Your task to perform on an android device: change the upload size in google photos Image 0: 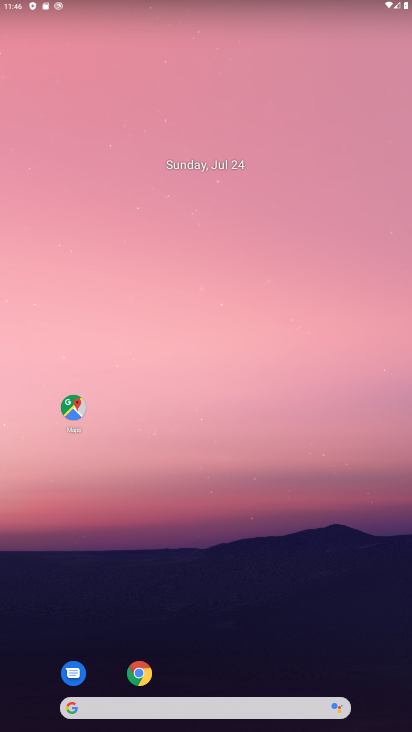
Step 0: drag from (174, 708) to (251, 52)
Your task to perform on an android device: change the upload size in google photos Image 1: 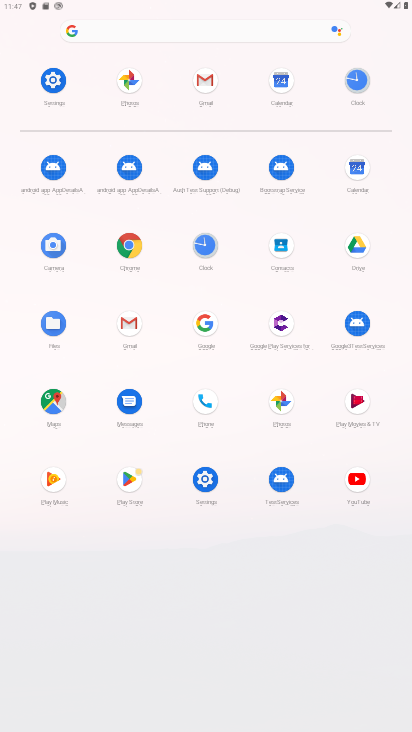
Step 1: click (283, 402)
Your task to perform on an android device: change the upload size in google photos Image 2: 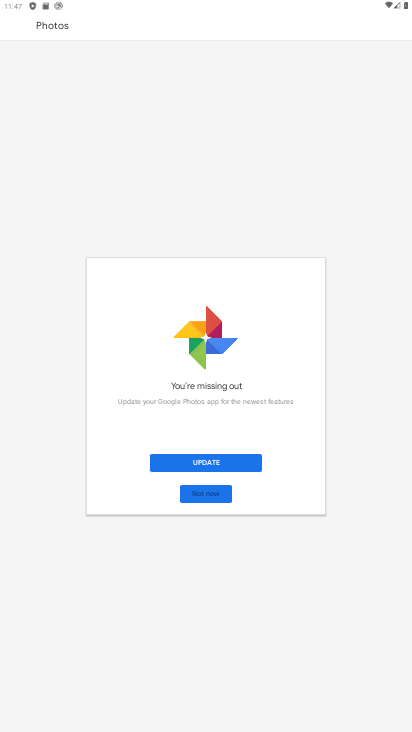
Step 2: click (215, 463)
Your task to perform on an android device: change the upload size in google photos Image 3: 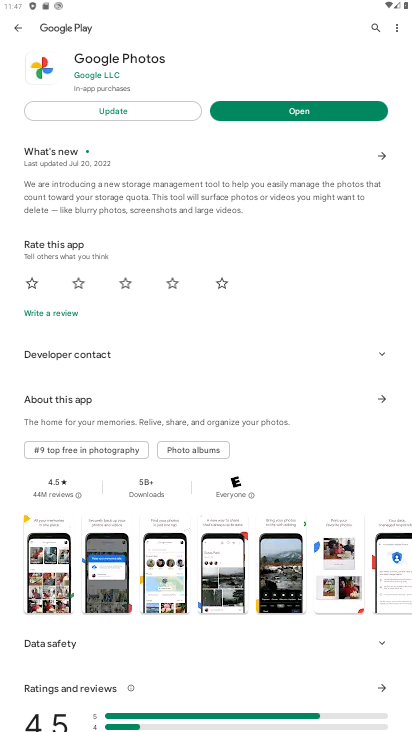
Step 3: click (122, 112)
Your task to perform on an android device: change the upload size in google photos Image 4: 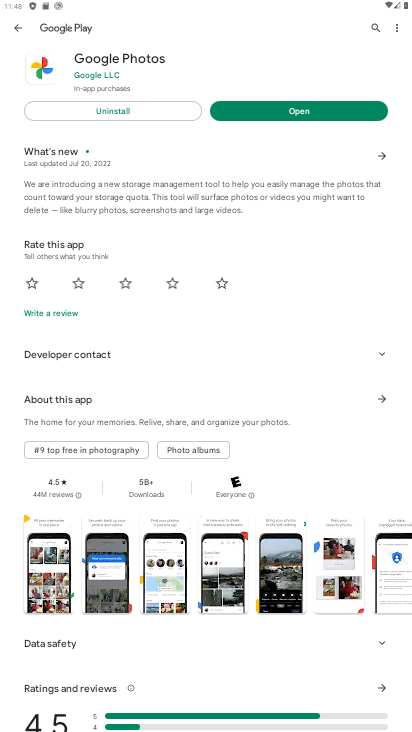
Step 4: click (283, 112)
Your task to perform on an android device: change the upload size in google photos Image 5: 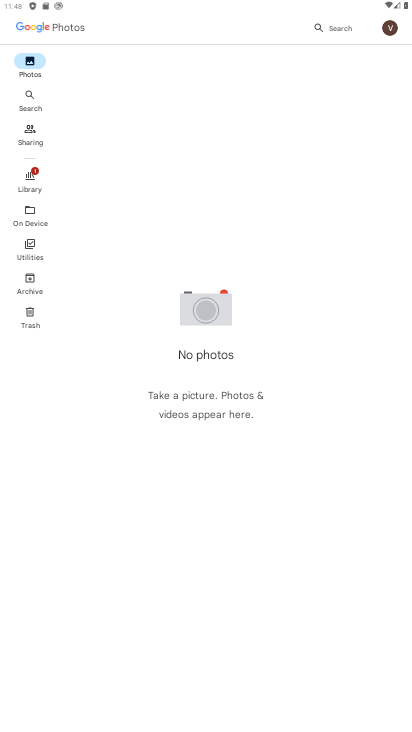
Step 5: click (392, 28)
Your task to perform on an android device: change the upload size in google photos Image 6: 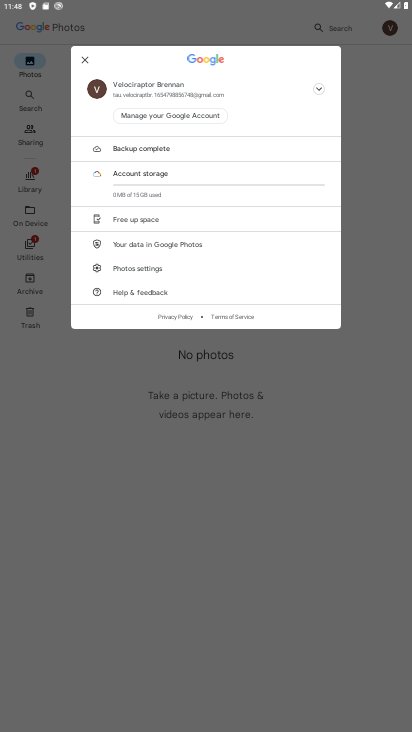
Step 6: click (135, 268)
Your task to perform on an android device: change the upload size in google photos Image 7: 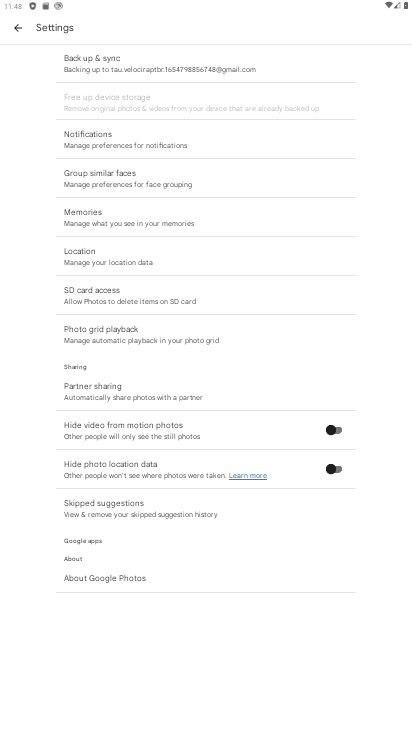
Step 7: click (216, 65)
Your task to perform on an android device: change the upload size in google photos Image 8: 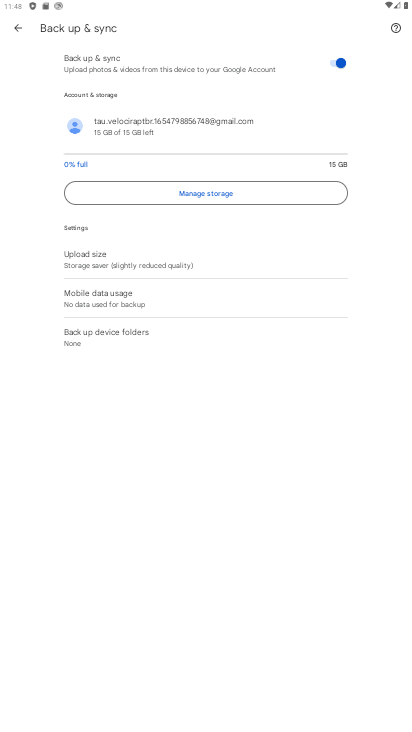
Step 8: click (105, 267)
Your task to perform on an android device: change the upload size in google photos Image 9: 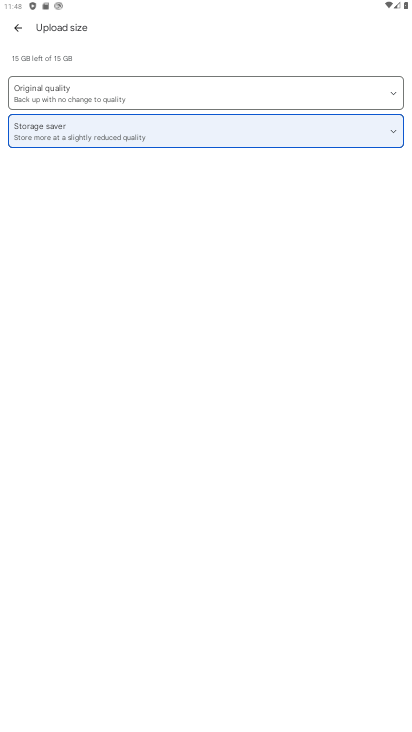
Step 9: click (396, 90)
Your task to perform on an android device: change the upload size in google photos Image 10: 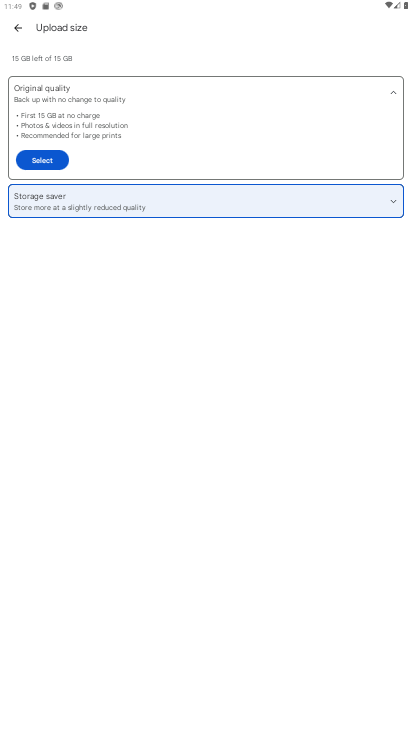
Step 10: click (46, 161)
Your task to perform on an android device: change the upload size in google photos Image 11: 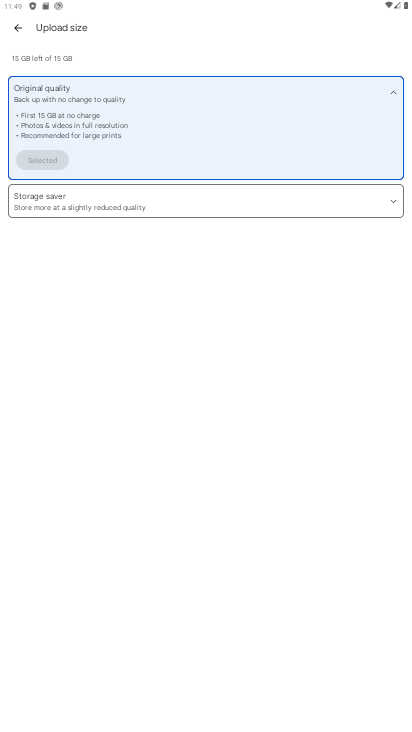
Step 11: task complete